Your task to perform on an android device: turn on airplane mode Image 0: 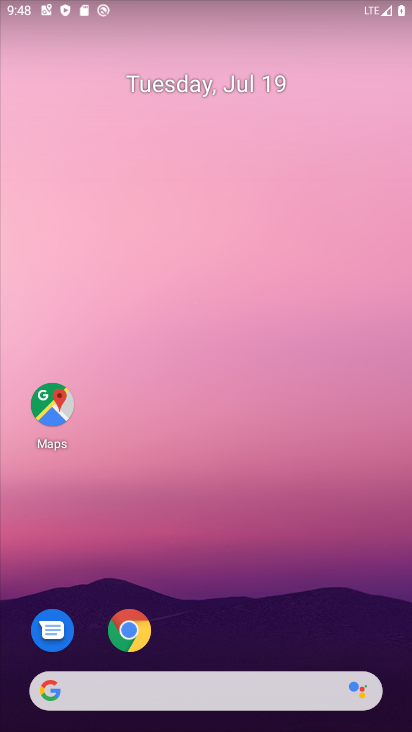
Step 0: drag from (185, 595) to (169, 86)
Your task to perform on an android device: turn on airplane mode Image 1: 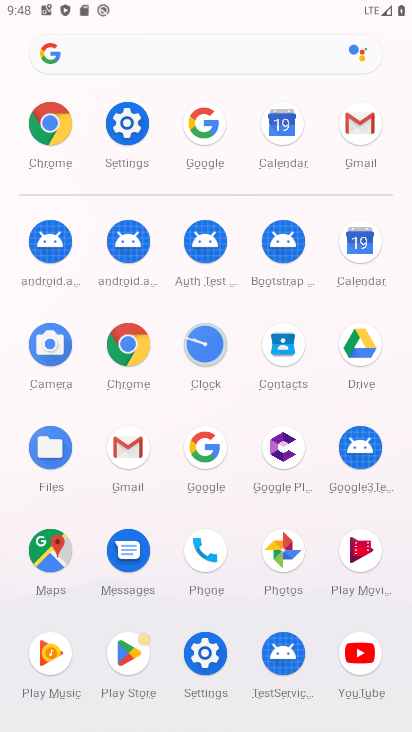
Step 1: click (126, 126)
Your task to perform on an android device: turn on airplane mode Image 2: 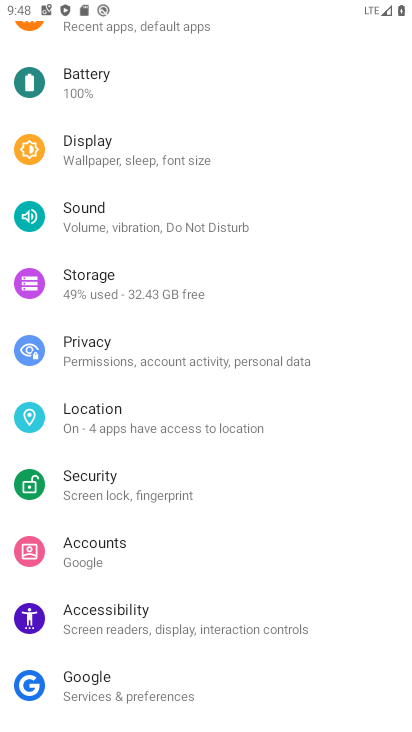
Step 2: drag from (171, 106) to (210, 571)
Your task to perform on an android device: turn on airplane mode Image 3: 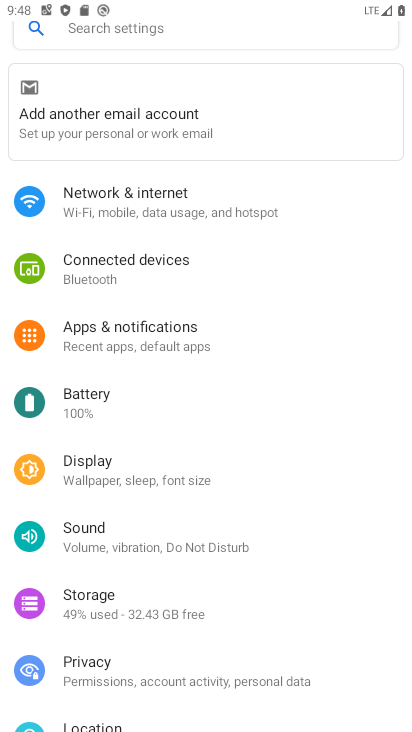
Step 3: click (145, 234)
Your task to perform on an android device: turn on airplane mode Image 4: 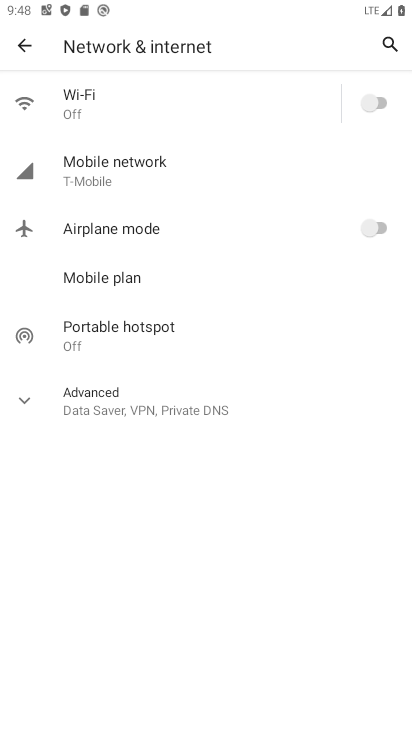
Step 4: click (368, 230)
Your task to perform on an android device: turn on airplane mode Image 5: 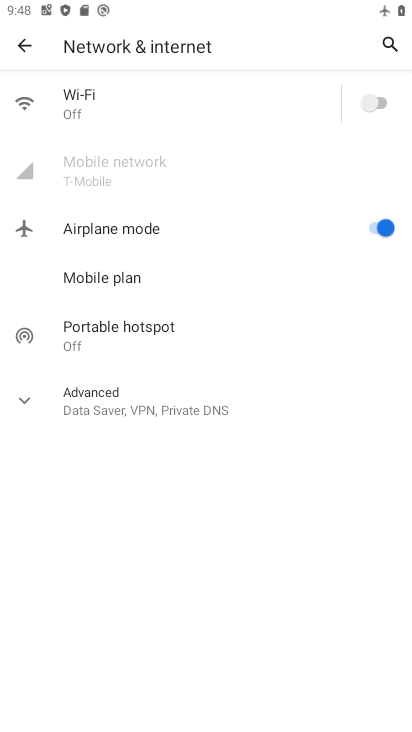
Step 5: task complete